Your task to perform on an android device: Open Google Maps Image 0: 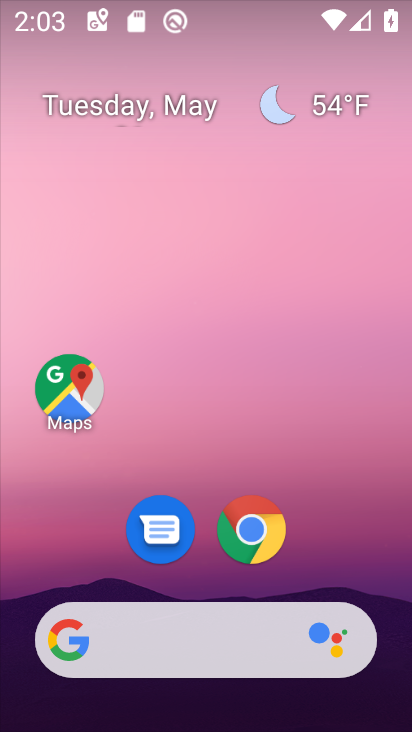
Step 0: drag from (328, 493) to (320, 222)
Your task to perform on an android device: Open Google Maps Image 1: 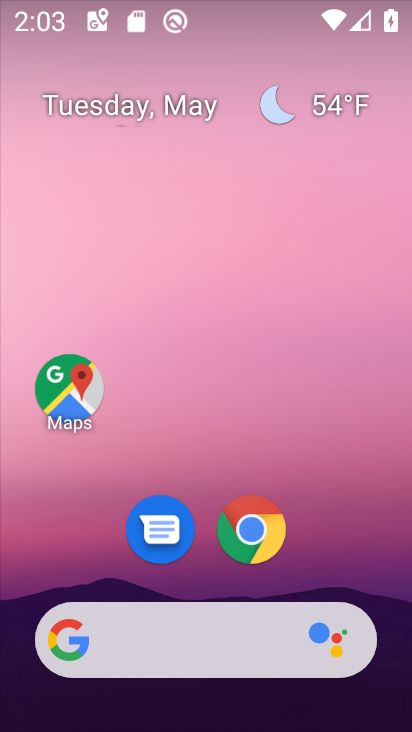
Step 1: drag from (316, 560) to (284, 149)
Your task to perform on an android device: Open Google Maps Image 2: 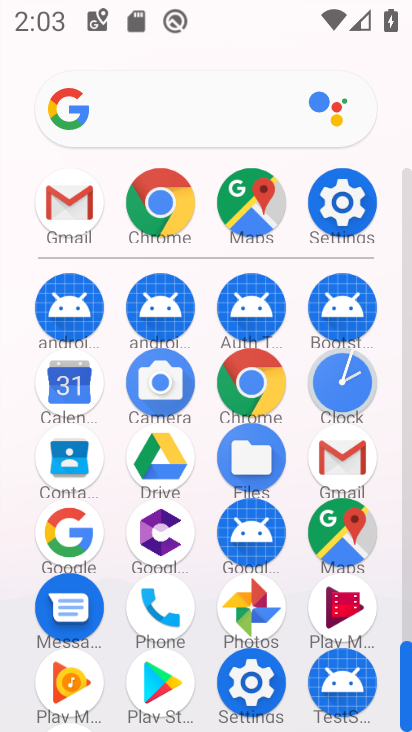
Step 2: click (348, 515)
Your task to perform on an android device: Open Google Maps Image 3: 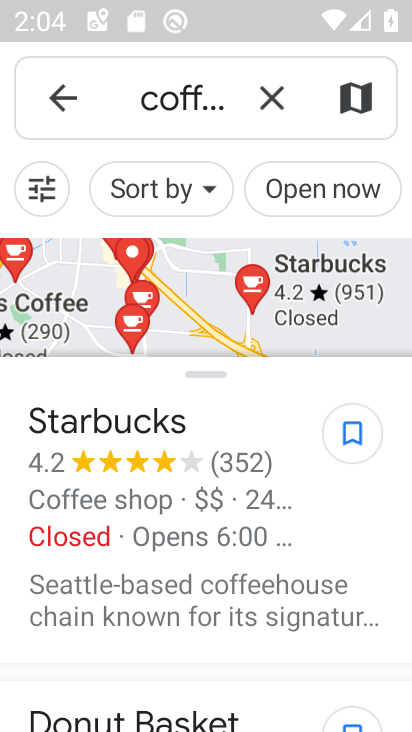
Step 3: task complete